Your task to perform on an android device: Open internet settings Image 0: 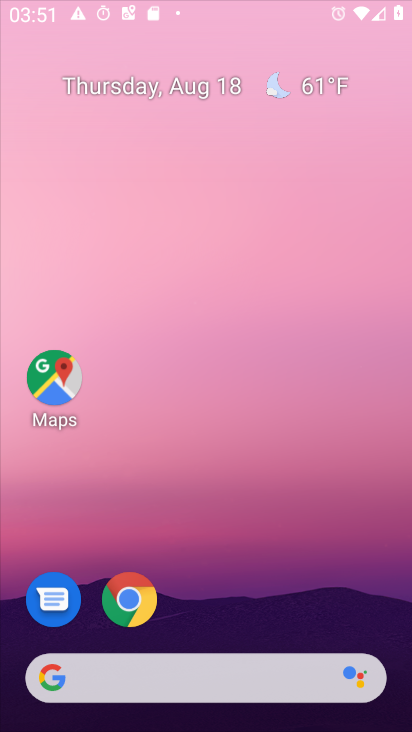
Step 0: press home button
Your task to perform on an android device: Open internet settings Image 1: 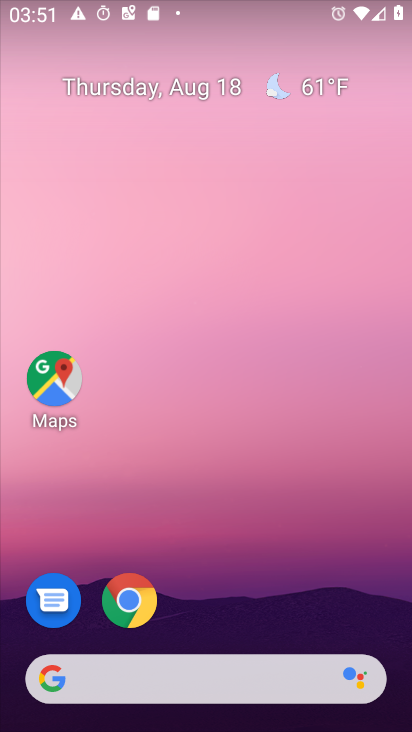
Step 1: drag from (232, 634) to (270, 100)
Your task to perform on an android device: Open internet settings Image 2: 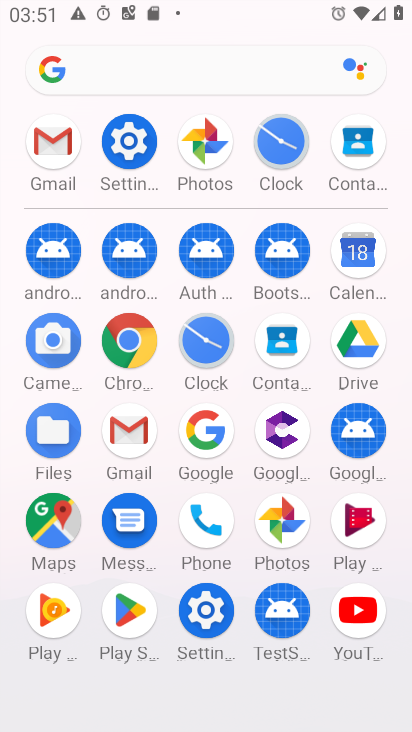
Step 2: click (124, 145)
Your task to perform on an android device: Open internet settings Image 3: 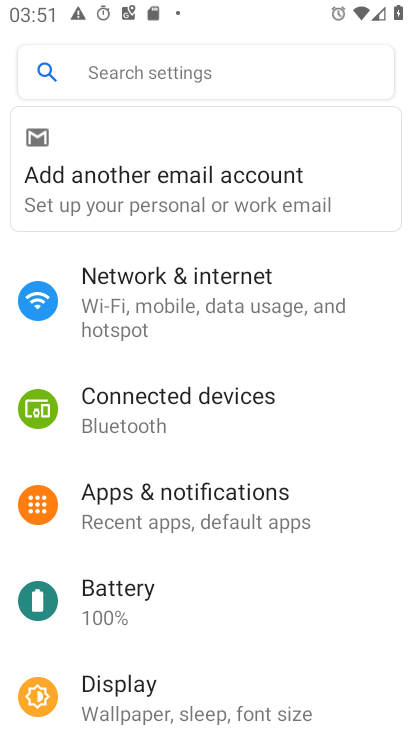
Step 3: drag from (299, 286) to (233, 725)
Your task to perform on an android device: Open internet settings Image 4: 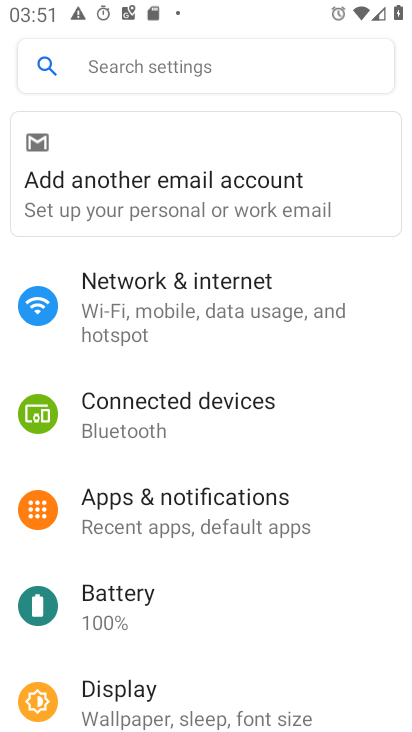
Step 4: click (168, 317)
Your task to perform on an android device: Open internet settings Image 5: 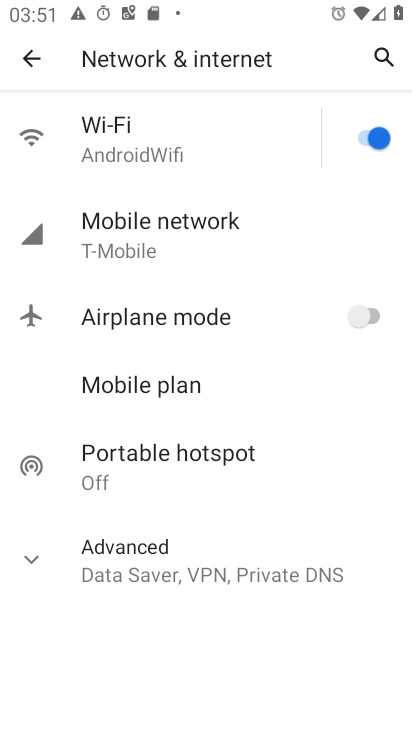
Step 5: click (121, 144)
Your task to perform on an android device: Open internet settings Image 6: 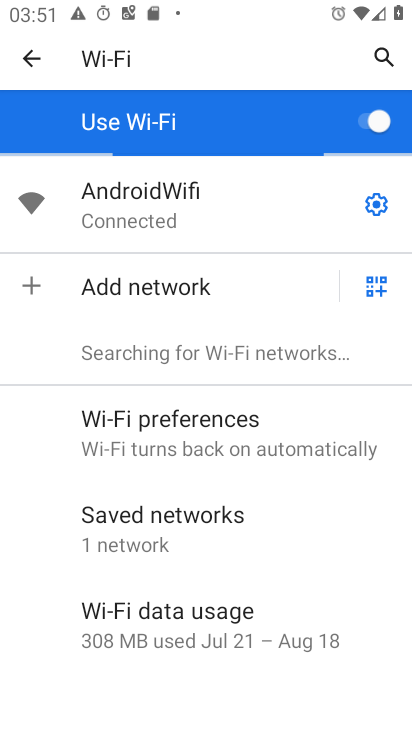
Step 6: click (122, 207)
Your task to perform on an android device: Open internet settings Image 7: 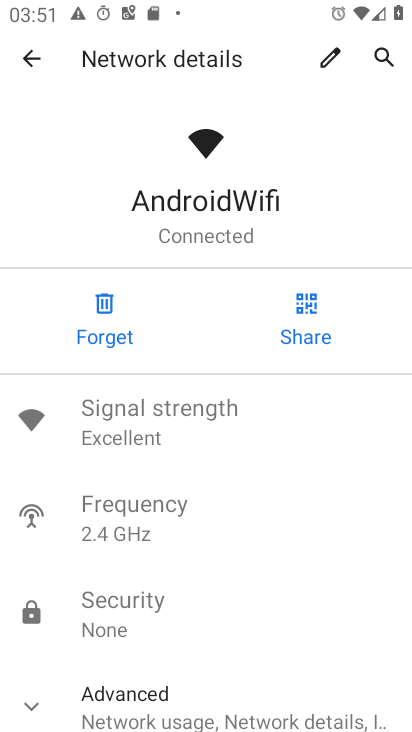
Step 7: task complete